Your task to perform on an android device: star an email in the gmail app Image 0: 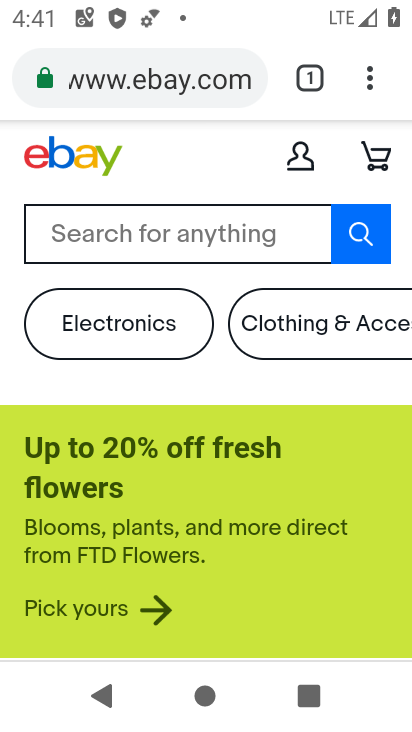
Step 0: press home button
Your task to perform on an android device: star an email in the gmail app Image 1: 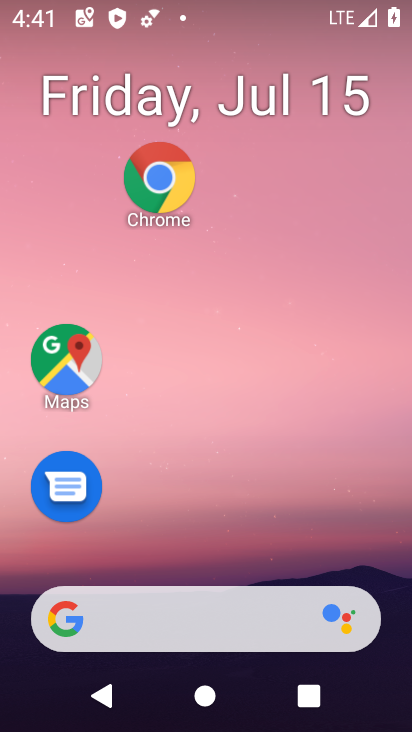
Step 1: drag from (199, 524) to (206, 17)
Your task to perform on an android device: star an email in the gmail app Image 2: 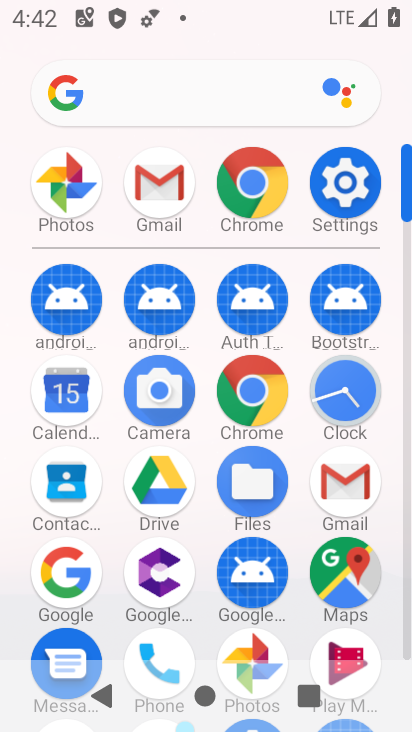
Step 2: click (332, 493)
Your task to perform on an android device: star an email in the gmail app Image 3: 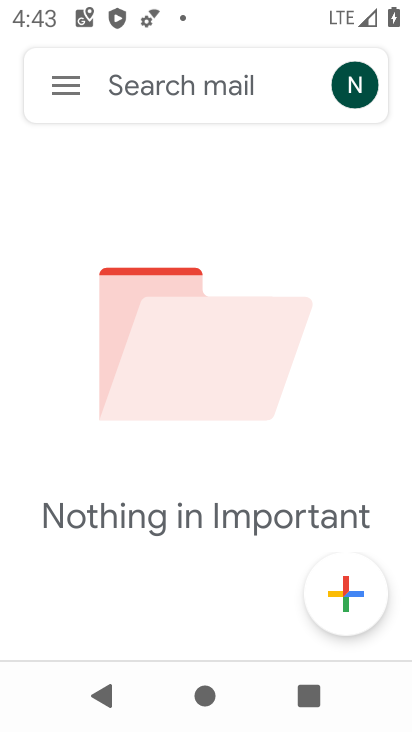
Step 3: click (55, 76)
Your task to perform on an android device: star an email in the gmail app Image 4: 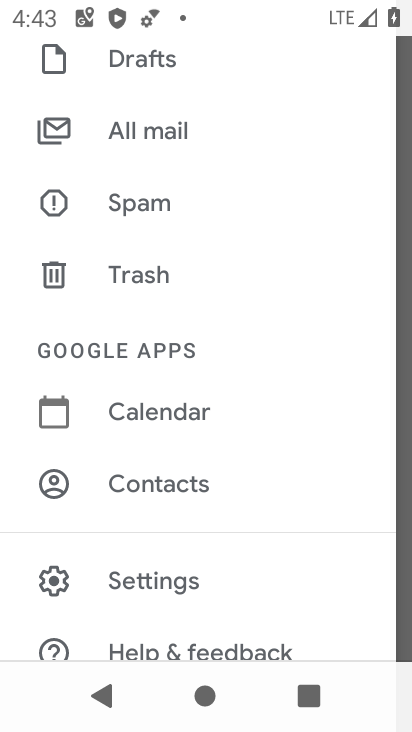
Step 4: click (173, 135)
Your task to perform on an android device: star an email in the gmail app Image 5: 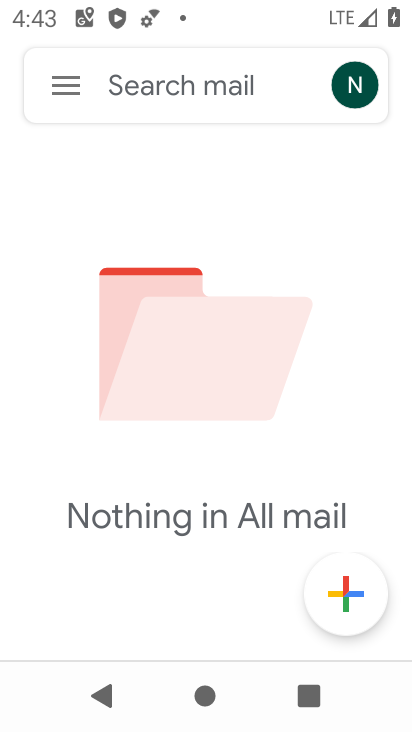
Step 5: task complete